Your task to perform on an android device: Find coffee shops on Maps Image 0: 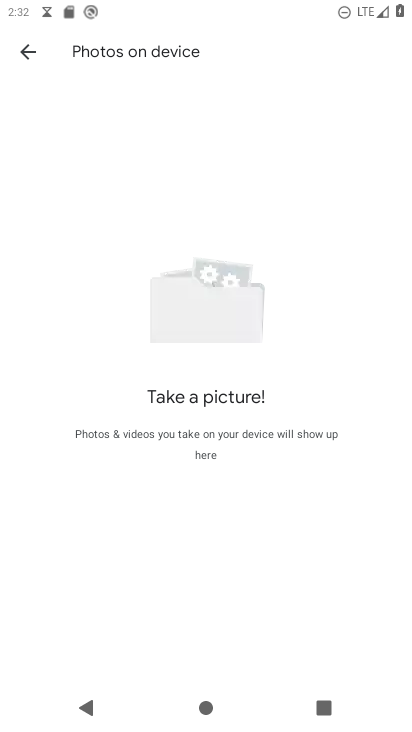
Step 0: press home button
Your task to perform on an android device: Find coffee shops on Maps Image 1: 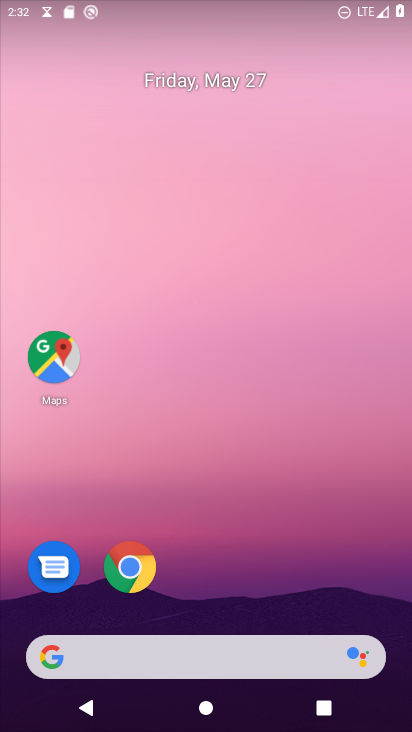
Step 1: click (53, 345)
Your task to perform on an android device: Find coffee shops on Maps Image 2: 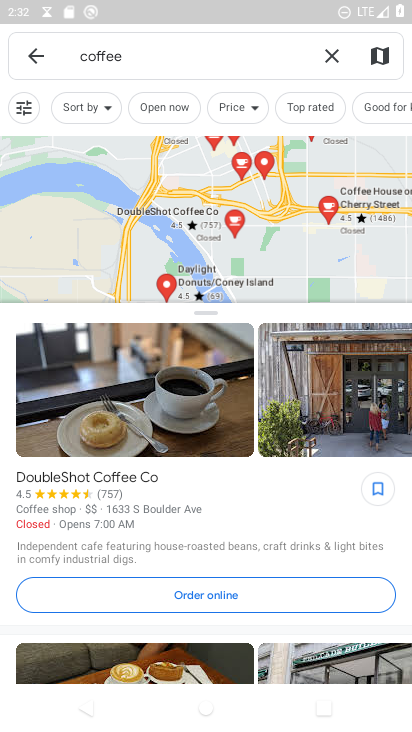
Step 2: task complete